Your task to perform on an android device: read, delete, or share a saved page in the chrome app Image 0: 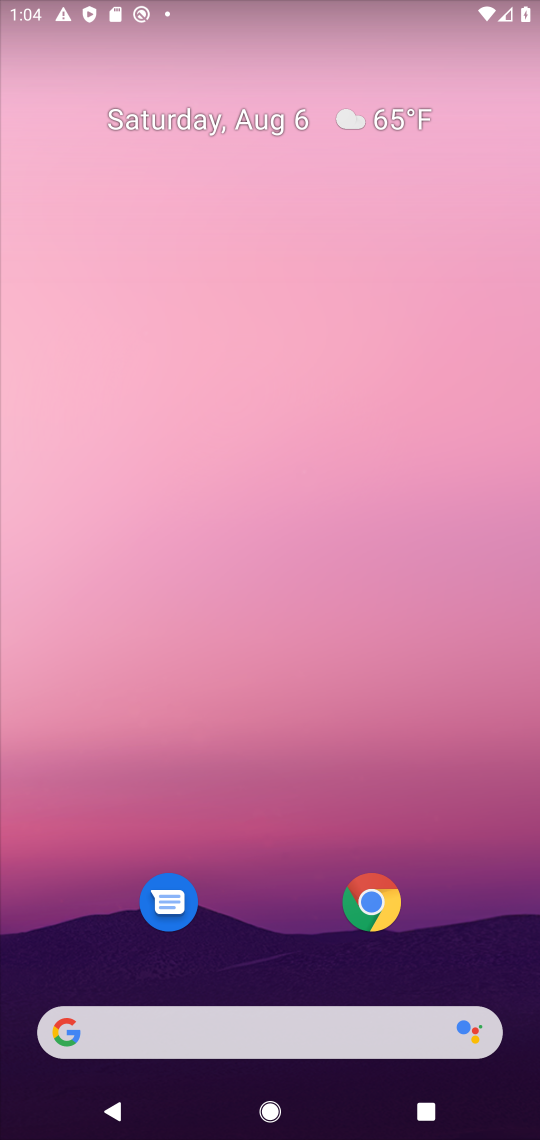
Step 0: click (361, 897)
Your task to perform on an android device: read, delete, or share a saved page in the chrome app Image 1: 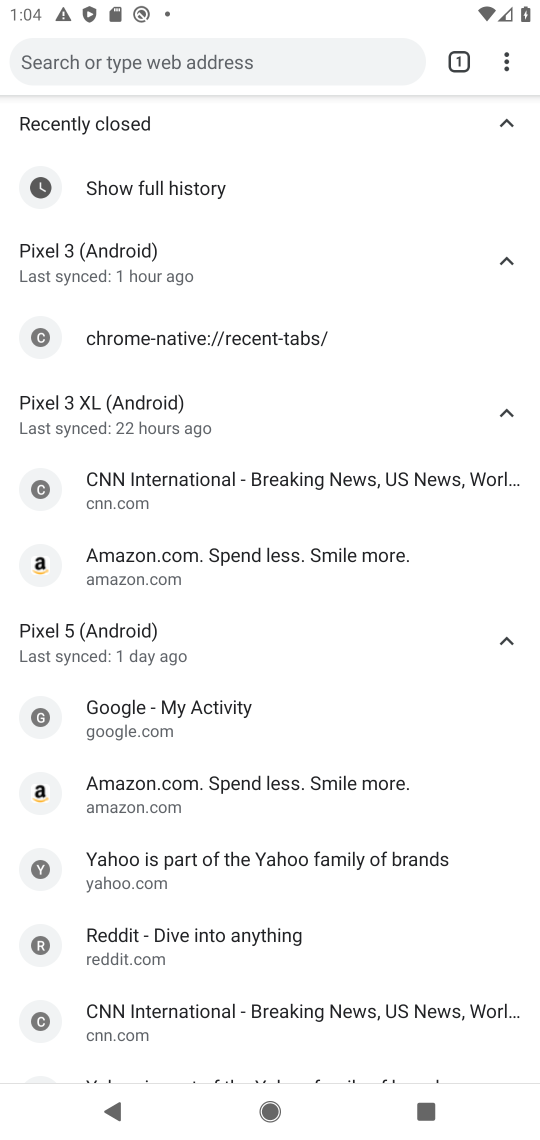
Step 1: click (507, 61)
Your task to perform on an android device: read, delete, or share a saved page in the chrome app Image 2: 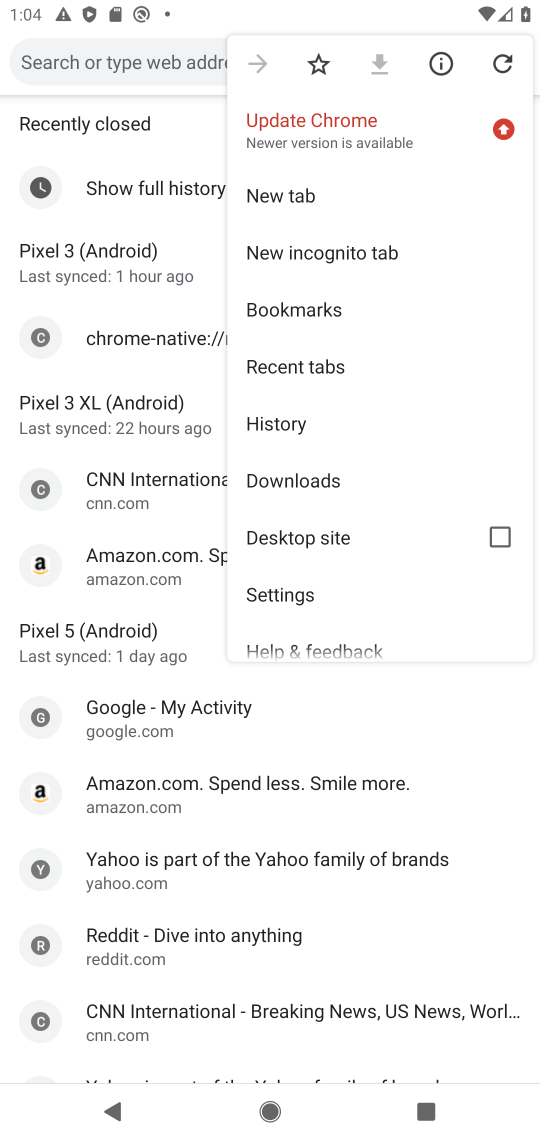
Step 2: click (294, 489)
Your task to perform on an android device: read, delete, or share a saved page in the chrome app Image 3: 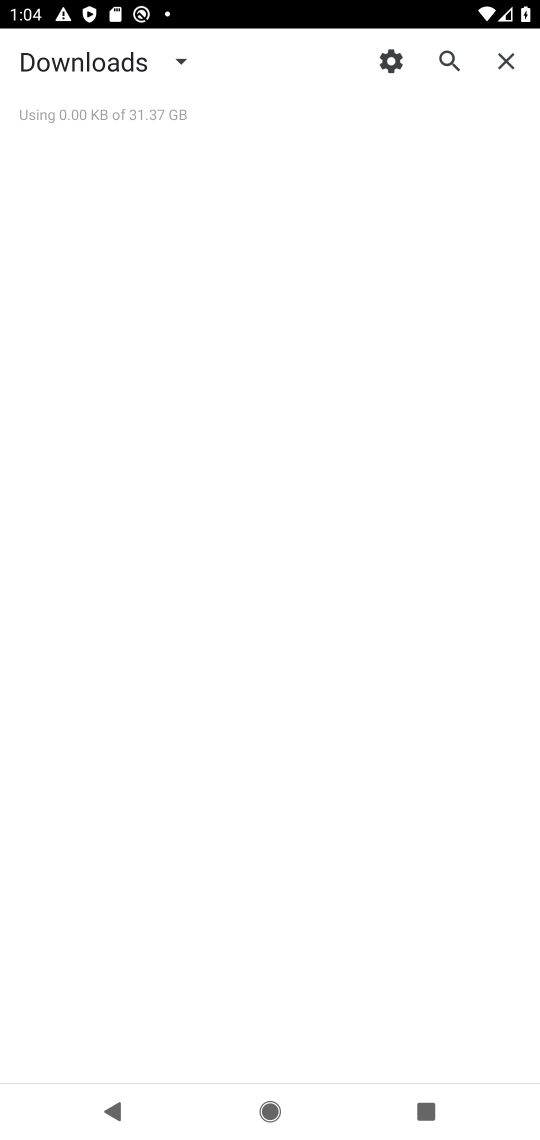
Step 3: task complete